Your task to perform on an android device: What's the weather going to be tomorrow? Image 0: 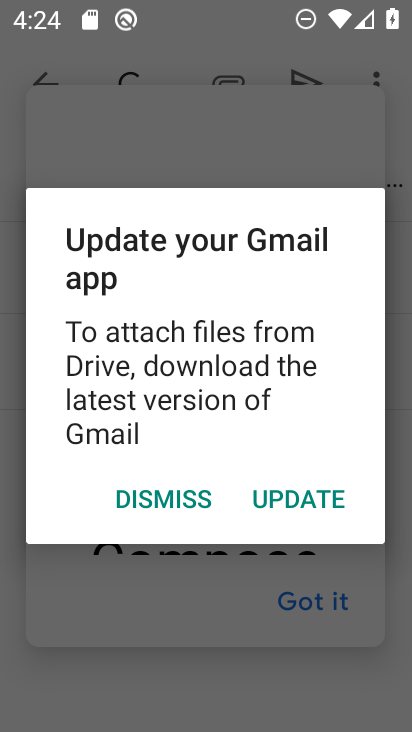
Step 0: press home button
Your task to perform on an android device: What's the weather going to be tomorrow? Image 1: 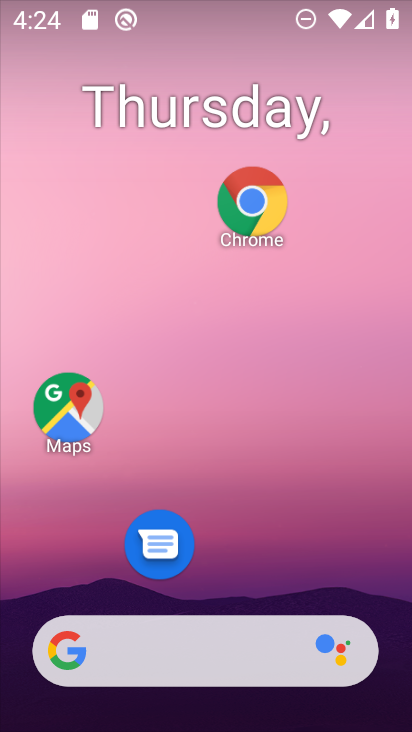
Step 1: drag from (265, 576) to (303, 218)
Your task to perform on an android device: What's the weather going to be tomorrow? Image 2: 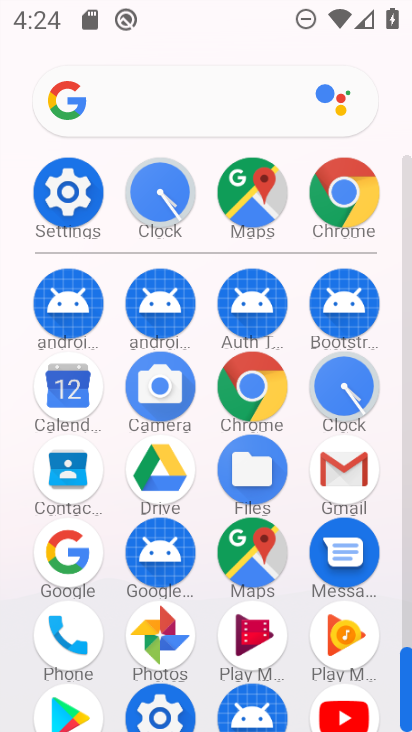
Step 2: click (205, 97)
Your task to perform on an android device: What's the weather going to be tomorrow? Image 3: 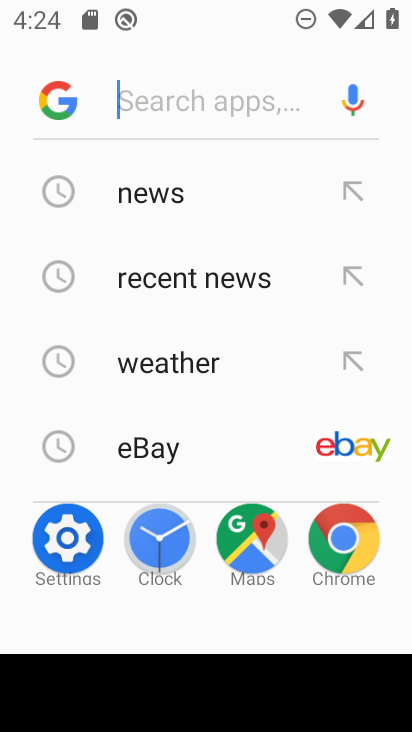
Step 3: click (236, 353)
Your task to perform on an android device: What's the weather going to be tomorrow? Image 4: 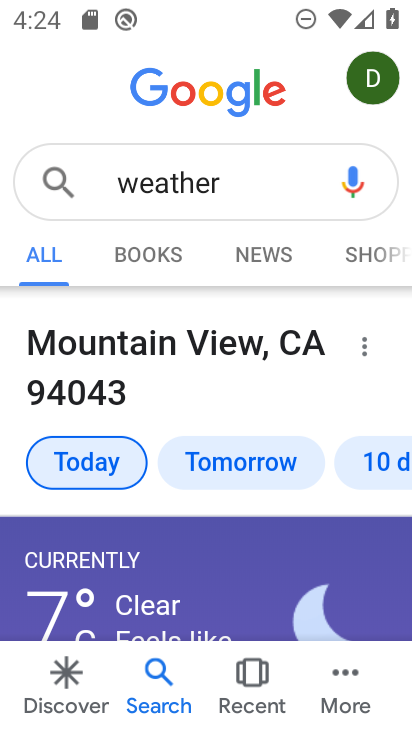
Step 4: click (208, 465)
Your task to perform on an android device: What's the weather going to be tomorrow? Image 5: 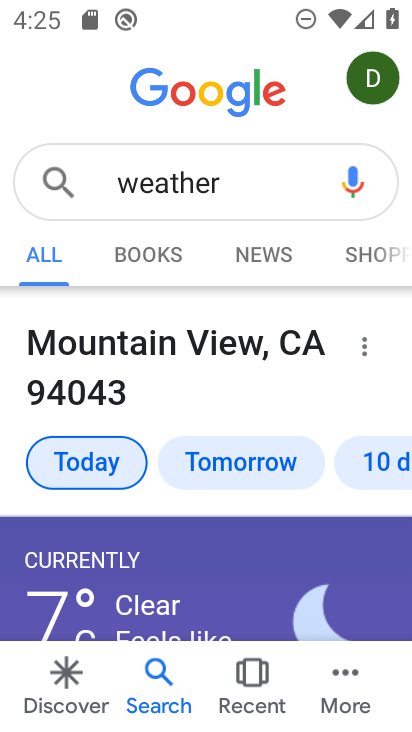
Step 5: click (208, 465)
Your task to perform on an android device: What's the weather going to be tomorrow? Image 6: 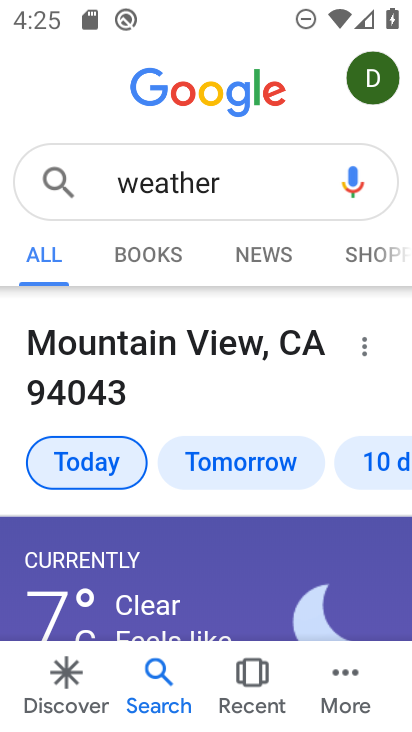
Step 6: click (188, 466)
Your task to perform on an android device: What's the weather going to be tomorrow? Image 7: 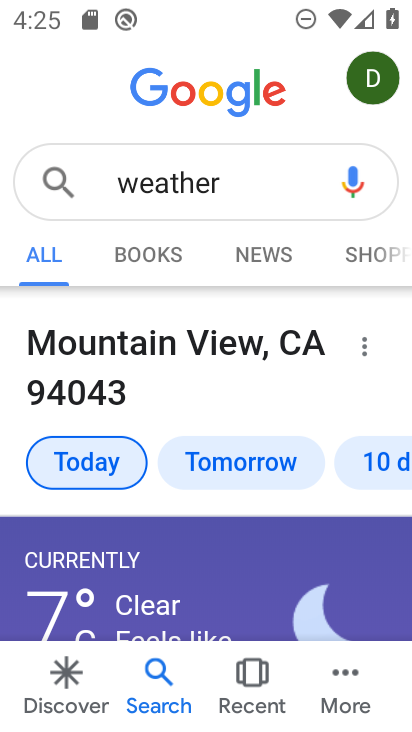
Step 7: click (188, 466)
Your task to perform on an android device: What's the weather going to be tomorrow? Image 8: 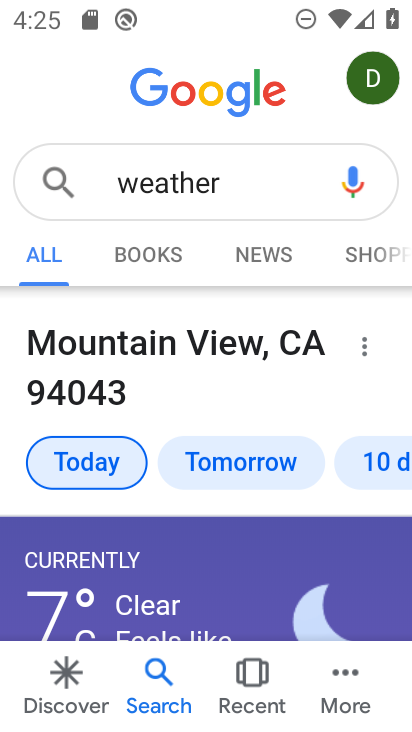
Step 8: click (188, 466)
Your task to perform on an android device: What's the weather going to be tomorrow? Image 9: 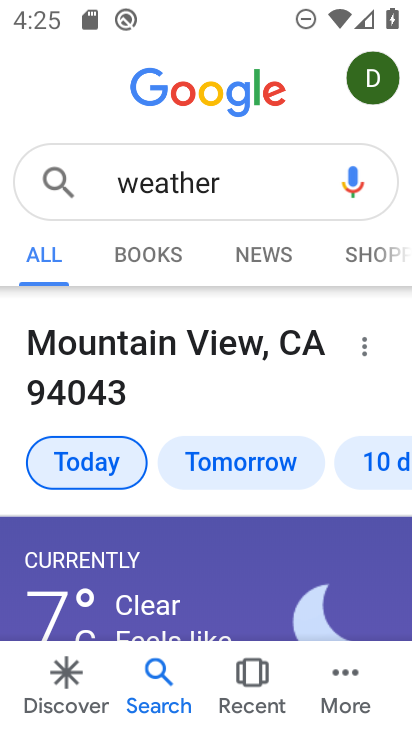
Step 9: click (188, 466)
Your task to perform on an android device: What's the weather going to be tomorrow? Image 10: 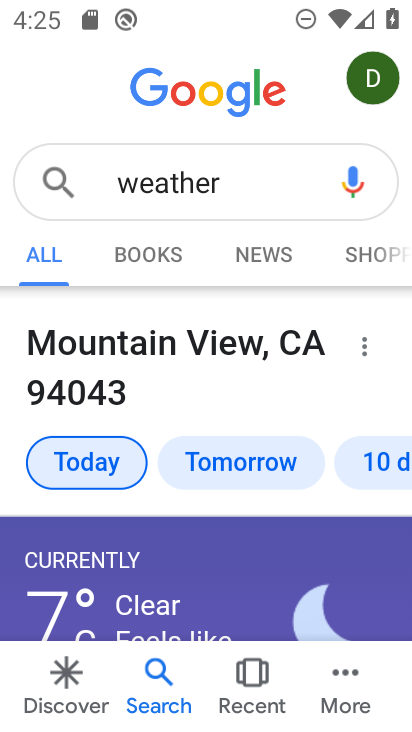
Step 10: click (188, 466)
Your task to perform on an android device: What's the weather going to be tomorrow? Image 11: 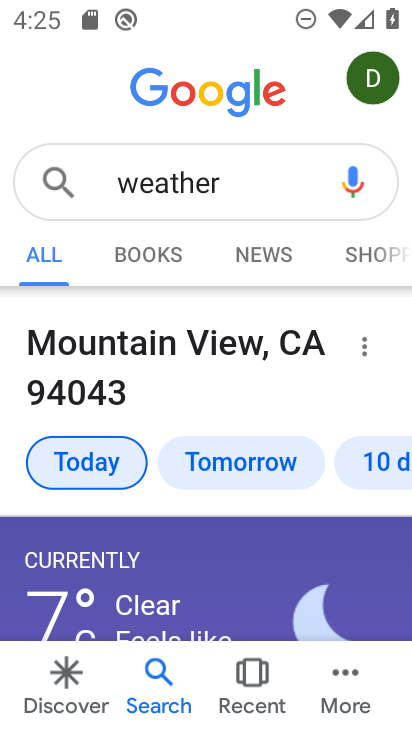
Step 11: click (188, 466)
Your task to perform on an android device: What's the weather going to be tomorrow? Image 12: 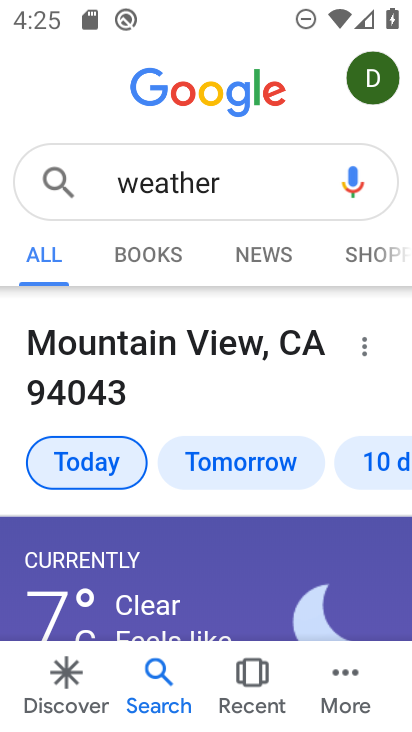
Step 12: click (188, 466)
Your task to perform on an android device: What's the weather going to be tomorrow? Image 13: 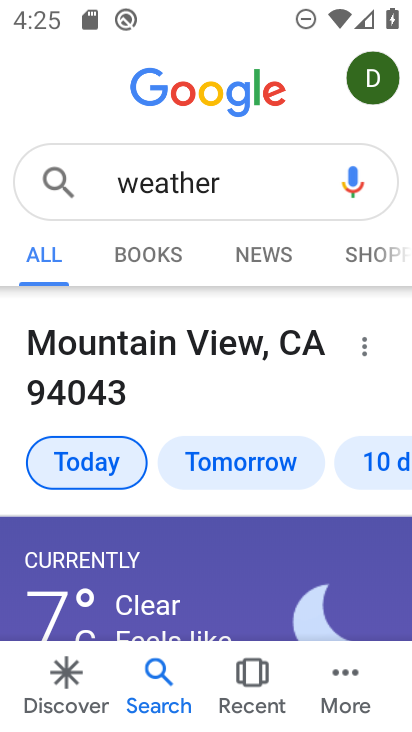
Step 13: click (188, 466)
Your task to perform on an android device: What's the weather going to be tomorrow? Image 14: 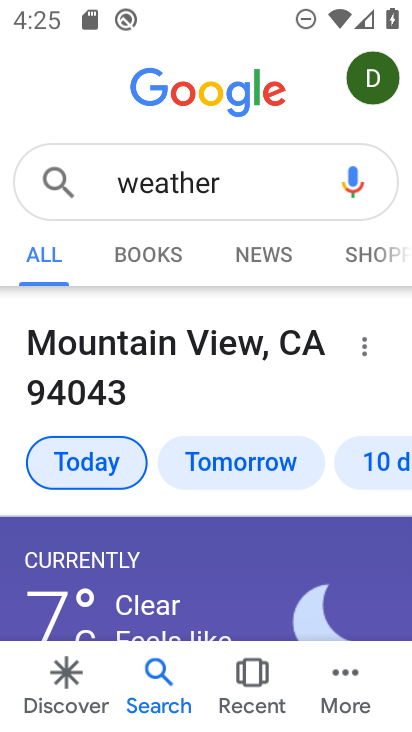
Step 14: click (277, 474)
Your task to perform on an android device: What's the weather going to be tomorrow? Image 15: 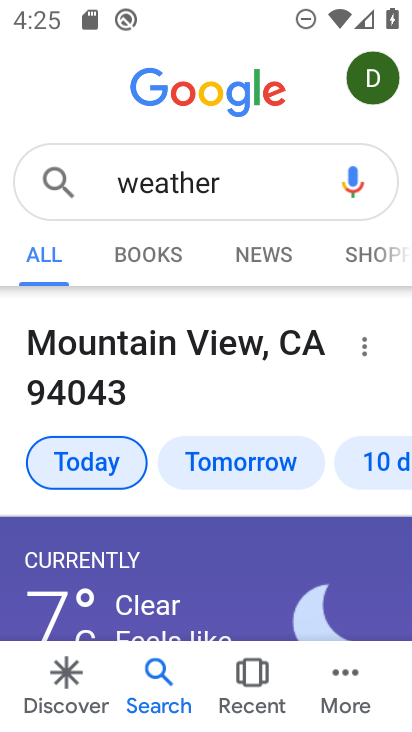
Step 15: click (278, 479)
Your task to perform on an android device: What's the weather going to be tomorrow? Image 16: 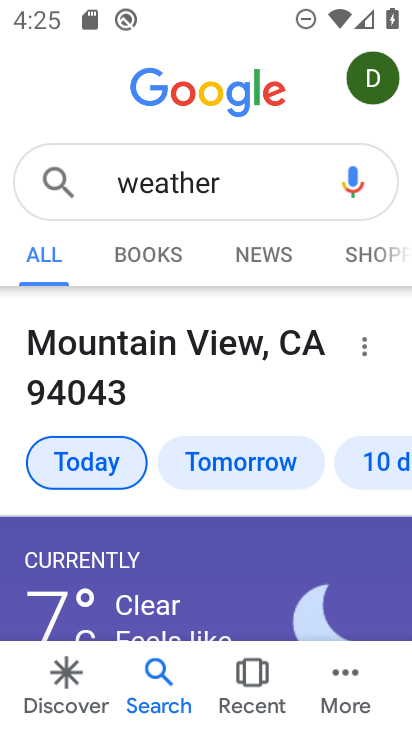
Step 16: click (280, 465)
Your task to perform on an android device: What's the weather going to be tomorrow? Image 17: 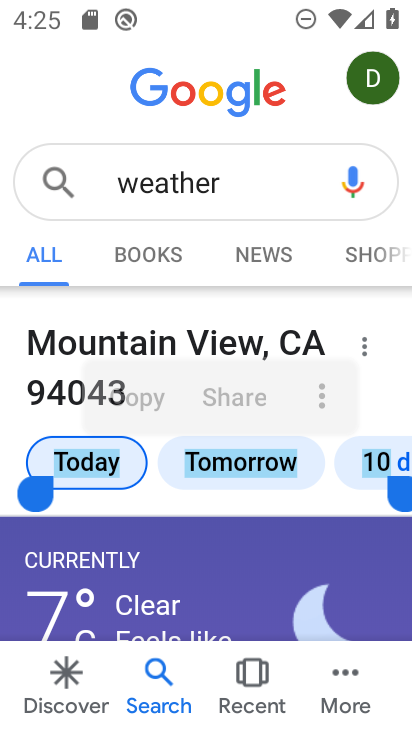
Step 17: drag from (285, 526) to (310, 464)
Your task to perform on an android device: What's the weather going to be tomorrow? Image 18: 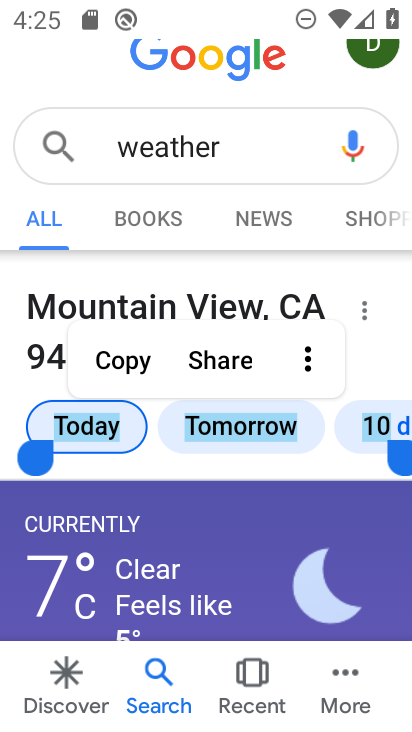
Step 18: drag from (118, 472) to (118, 342)
Your task to perform on an android device: What's the weather going to be tomorrow? Image 19: 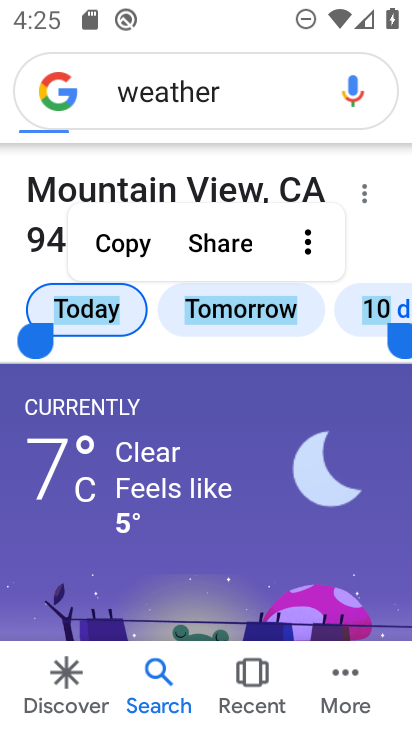
Step 19: click (214, 93)
Your task to perform on an android device: What's the weather going to be tomorrow? Image 20: 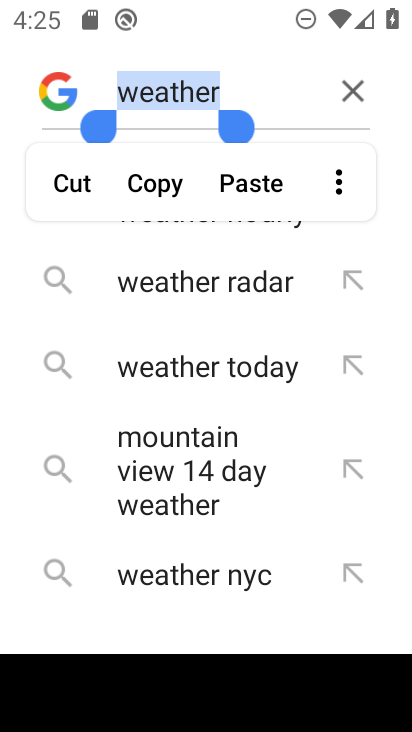
Step 20: click (341, 95)
Your task to perform on an android device: What's the weather going to be tomorrow? Image 21: 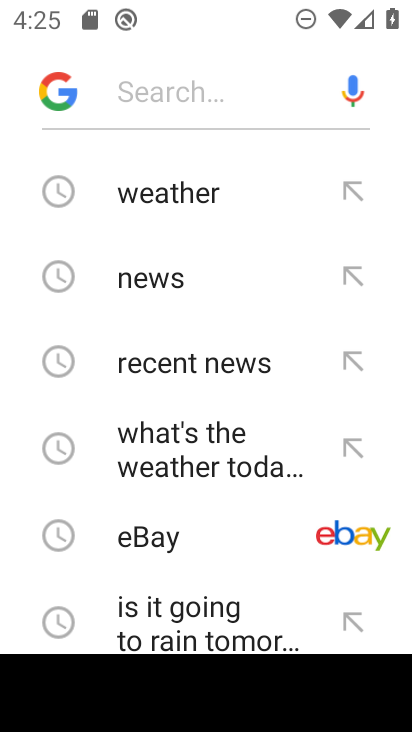
Step 21: click (219, 201)
Your task to perform on an android device: What's the weather going to be tomorrow? Image 22: 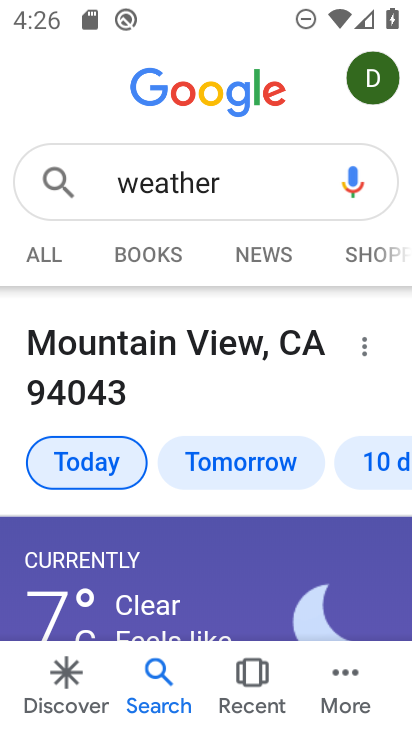
Step 22: click (252, 184)
Your task to perform on an android device: What's the weather going to be tomorrow? Image 23: 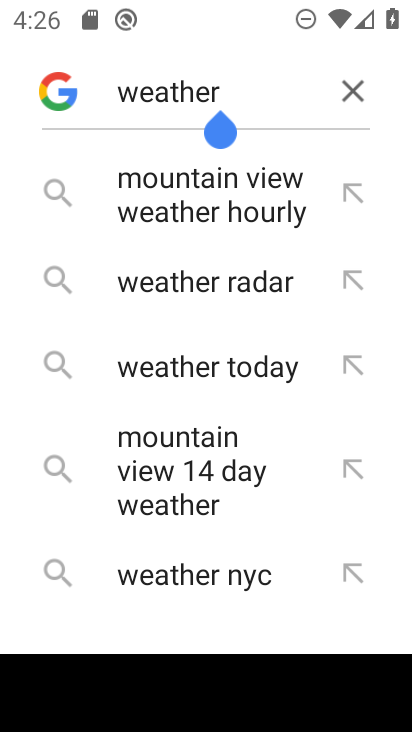
Step 23: click (252, 184)
Your task to perform on an android device: What's the weather going to be tomorrow? Image 24: 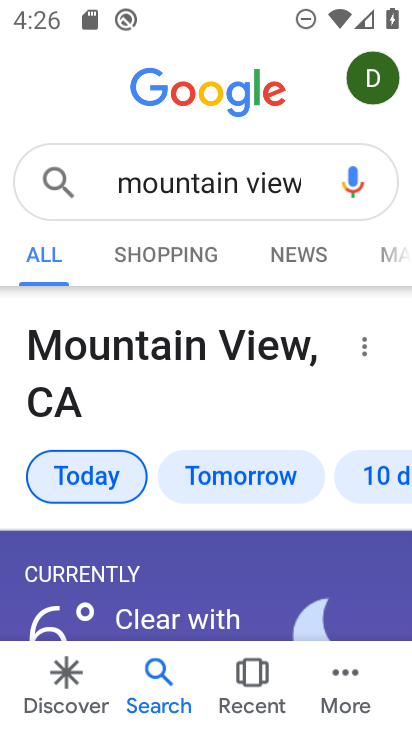
Step 24: click (252, 184)
Your task to perform on an android device: What's the weather going to be tomorrow? Image 25: 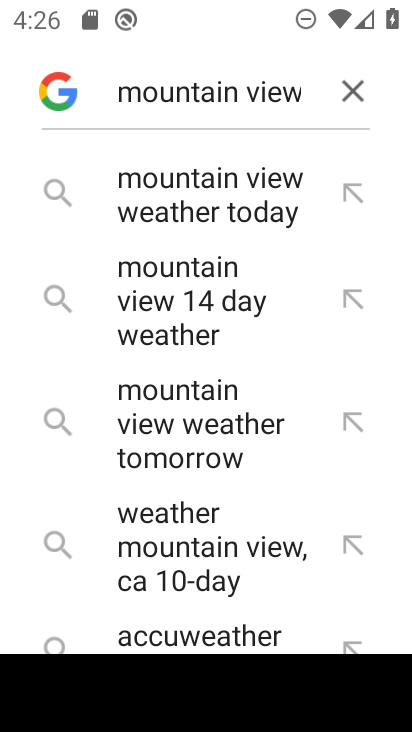
Step 25: click (353, 85)
Your task to perform on an android device: What's the weather going to be tomorrow? Image 26: 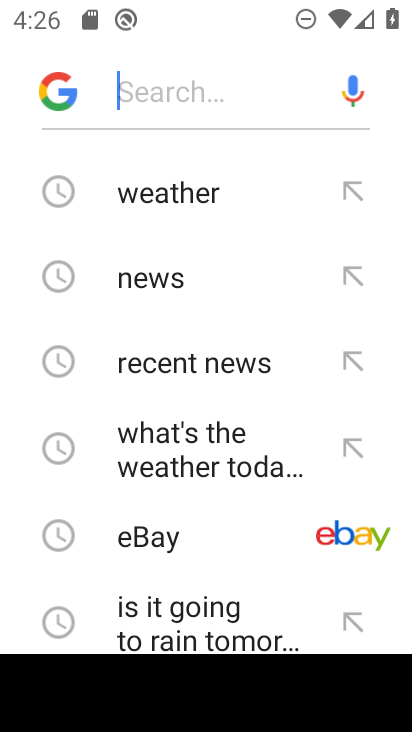
Step 26: click (174, 185)
Your task to perform on an android device: What's the weather going to be tomorrow? Image 27: 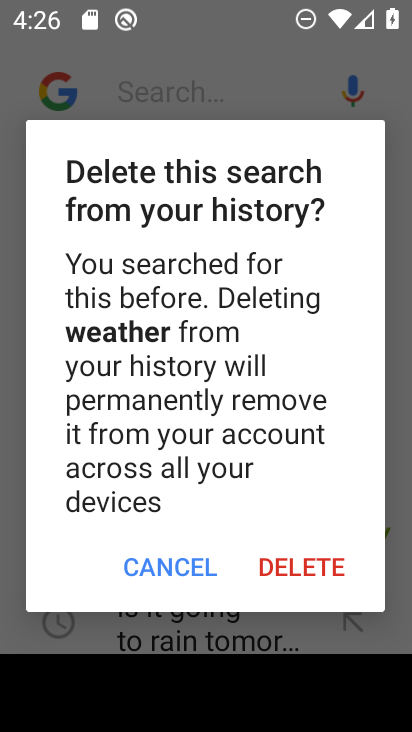
Step 27: click (164, 568)
Your task to perform on an android device: What's the weather going to be tomorrow? Image 28: 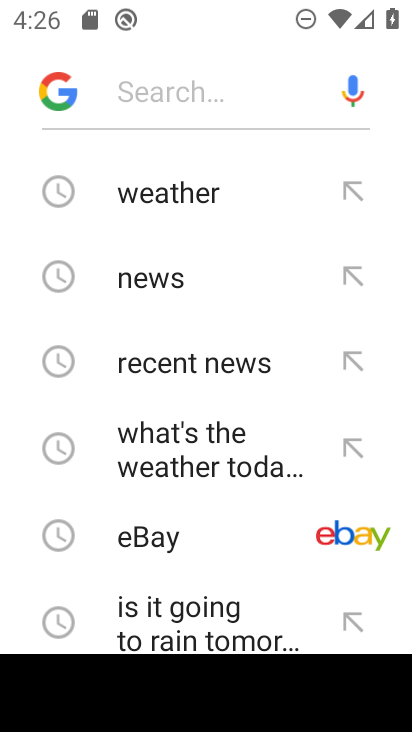
Step 28: click (127, 196)
Your task to perform on an android device: What's the weather going to be tomorrow? Image 29: 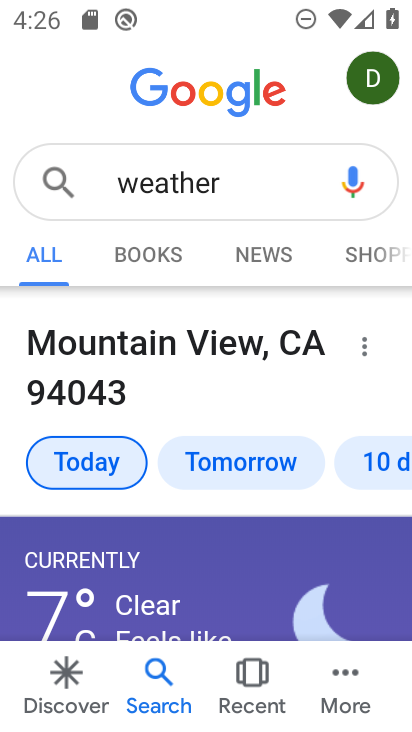
Step 29: click (228, 470)
Your task to perform on an android device: What's the weather going to be tomorrow? Image 30: 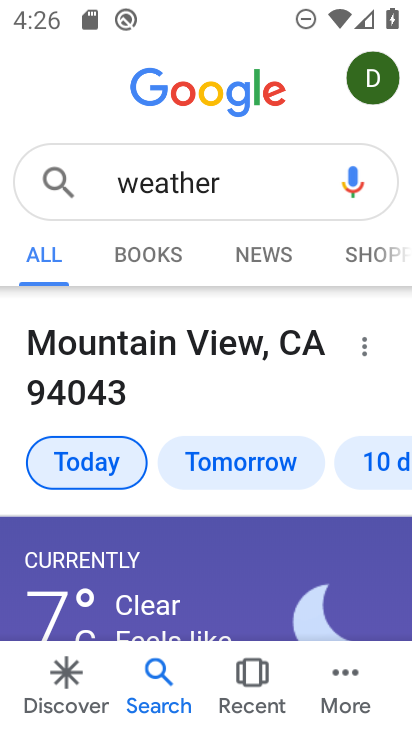
Step 30: drag from (245, 522) to (219, 265)
Your task to perform on an android device: What's the weather going to be tomorrow? Image 31: 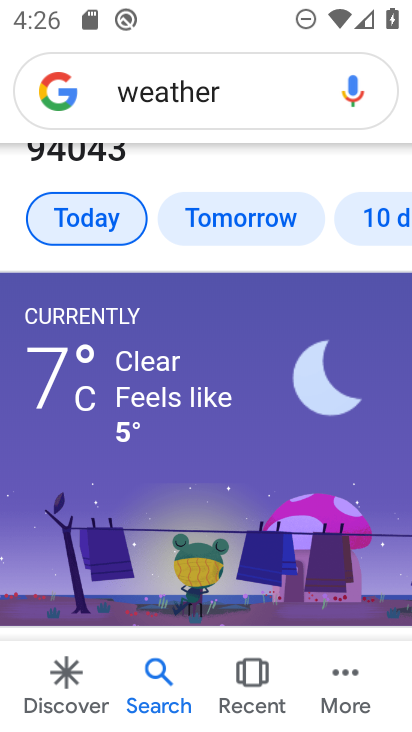
Step 31: drag from (348, 344) to (1, 354)
Your task to perform on an android device: What's the weather going to be tomorrow? Image 32: 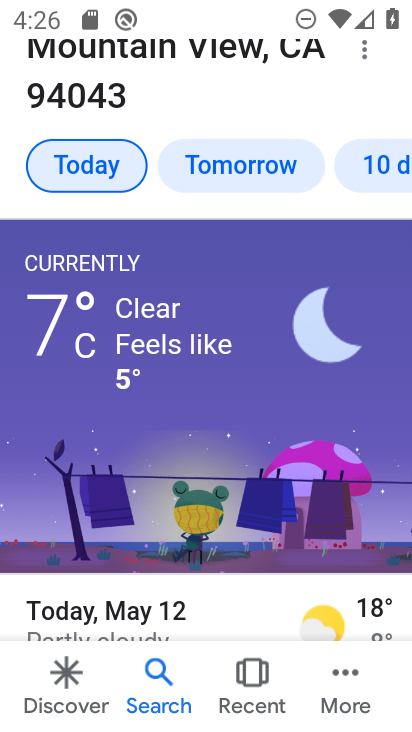
Step 32: drag from (227, 160) to (4, 175)
Your task to perform on an android device: What's the weather going to be tomorrow? Image 33: 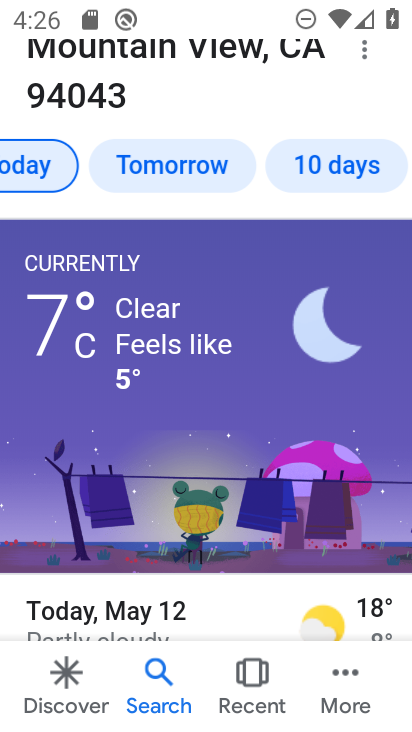
Step 33: click (140, 162)
Your task to perform on an android device: What's the weather going to be tomorrow? Image 34: 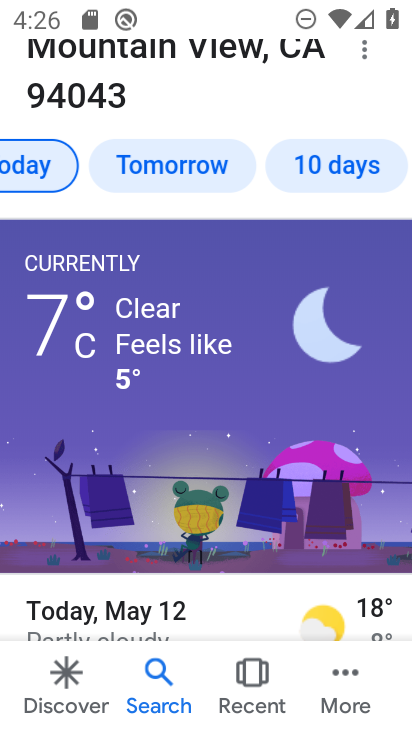
Step 34: click (140, 162)
Your task to perform on an android device: What's the weather going to be tomorrow? Image 35: 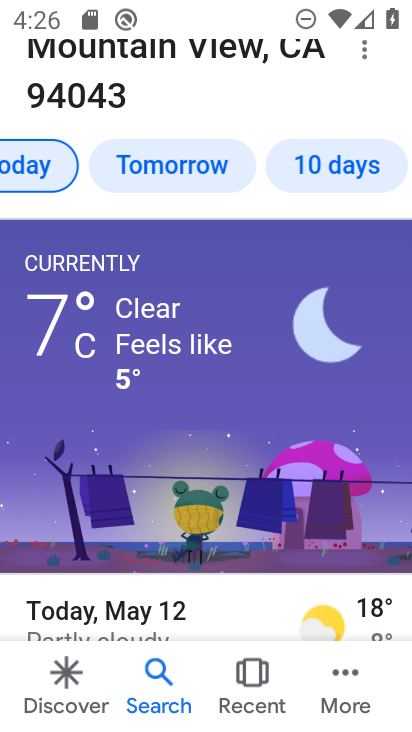
Step 35: click (141, 162)
Your task to perform on an android device: What's the weather going to be tomorrow? Image 36: 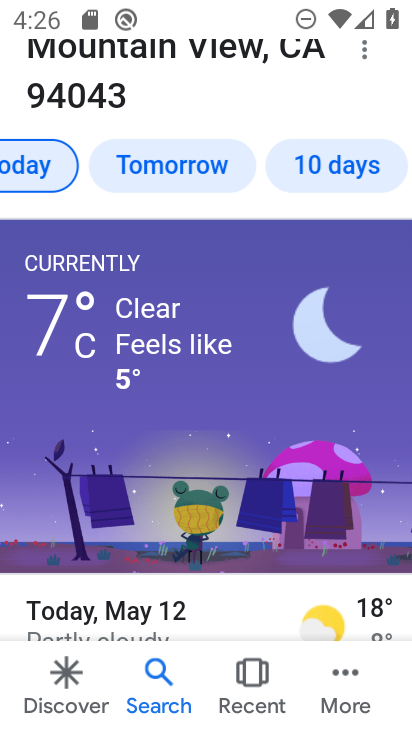
Step 36: click (134, 177)
Your task to perform on an android device: What's the weather going to be tomorrow? Image 37: 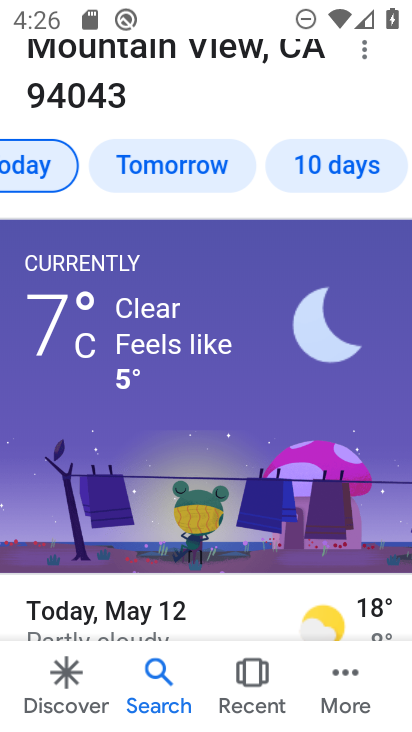
Step 37: click (134, 177)
Your task to perform on an android device: What's the weather going to be tomorrow? Image 38: 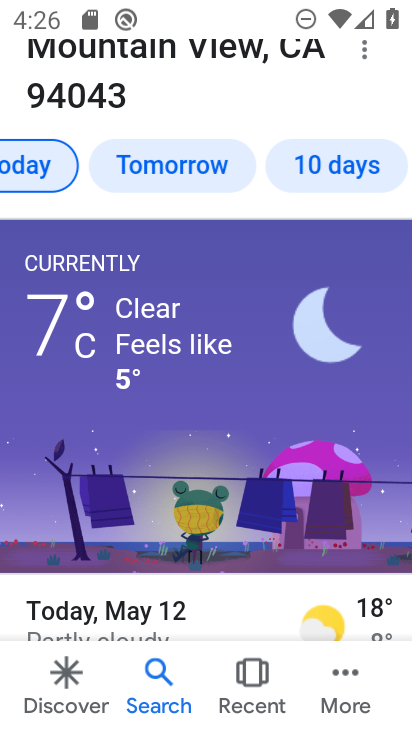
Step 38: click (134, 177)
Your task to perform on an android device: What's the weather going to be tomorrow? Image 39: 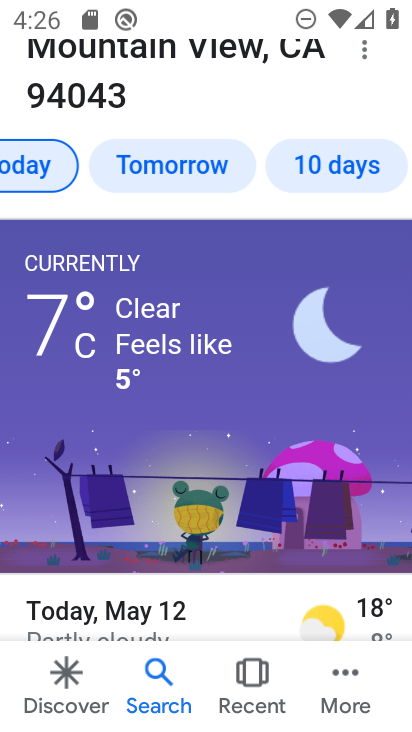
Step 39: click (224, 167)
Your task to perform on an android device: What's the weather going to be tomorrow? Image 40: 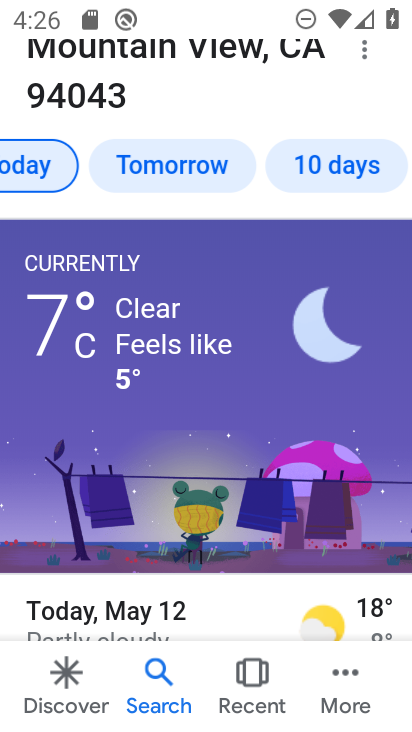
Step 40: click (224, 167)
Your task to perform on an android device: What's the weather going to be tomorrow? Image 41: 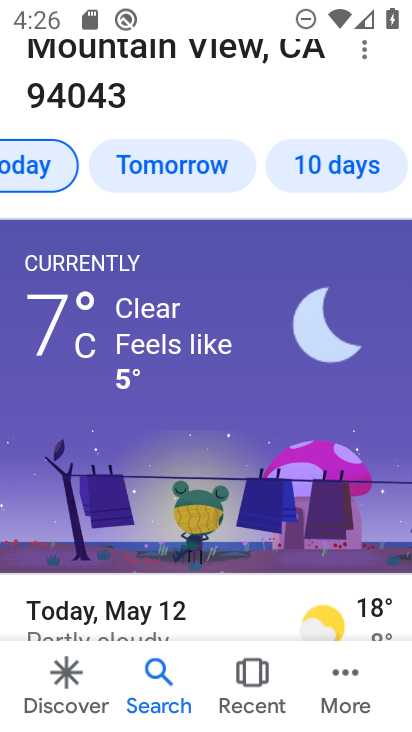
Step 41: click (224, 167)
Your task to perform on an android device: What's the weather going to be tomorrow? Image 42: 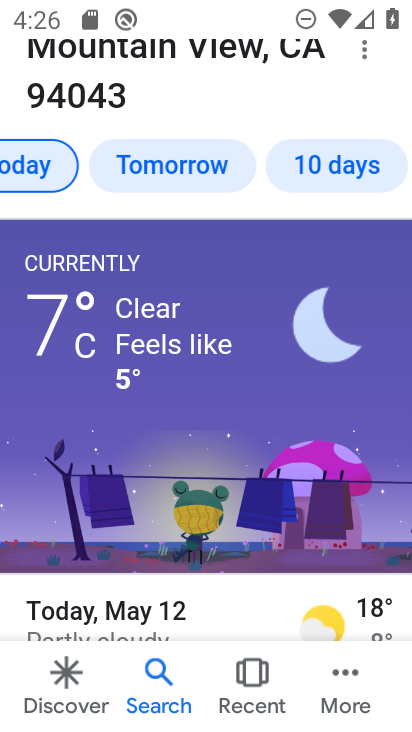
Step 42: click (224, 167)
Your task to perform on an android device: What's the weather going to be tomorrow? Image 43: 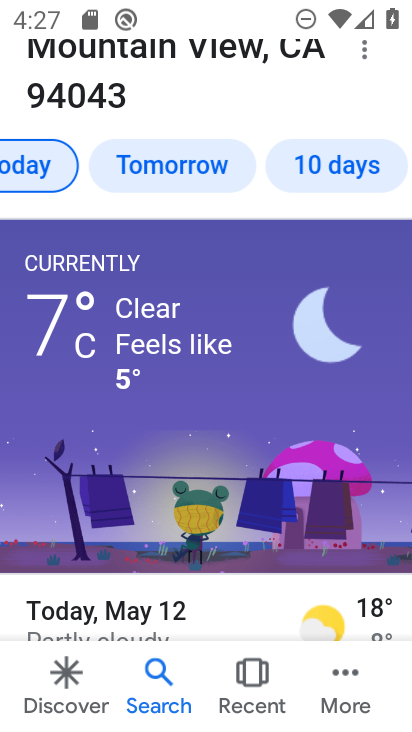
Step 43: task complete